Your task to perform on an android device: open app "HBO Max: Stream TV & Movies" (install if not already installed) and go to login screen Image 0: 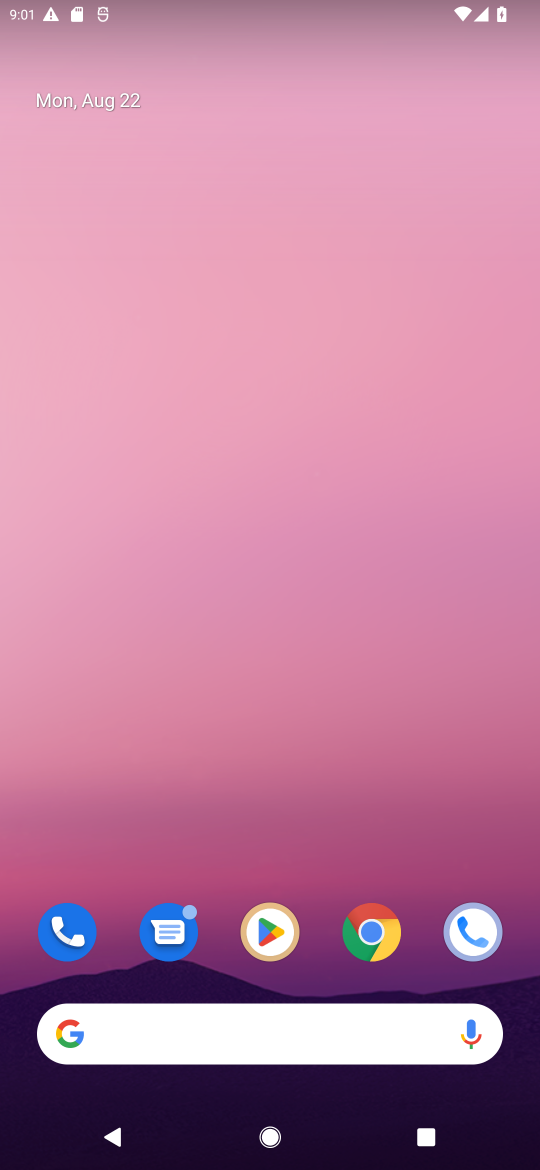
Step 0: click (289, 927)
Your task to perform on an android device: open app "HBO Max: Stream TV & Movies" (install if not already installed) and go to login screen Image 1: 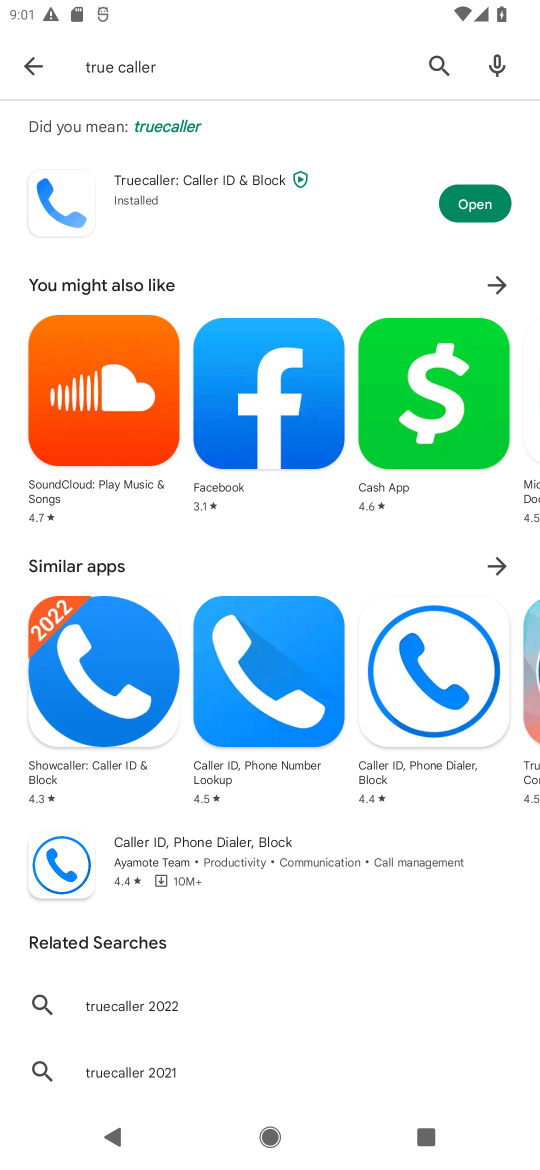
Step 1: click (427, 76)
Your task to perform on an android device: open app "HBO Max: Stream TV & Movies" (install if not already installed) and go to login screen Image 2: 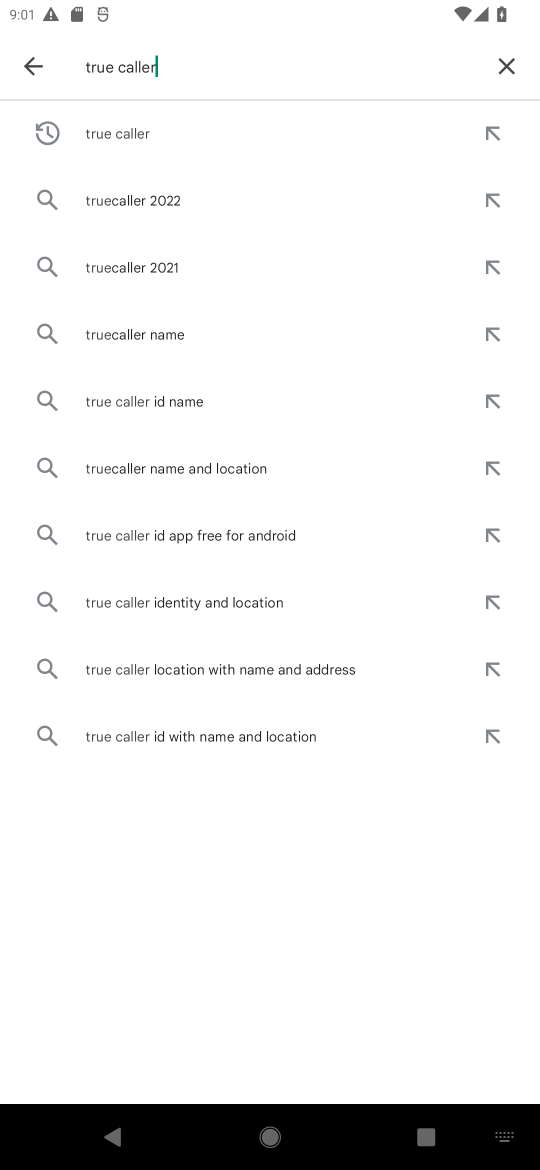
Step 2: click (497, 57)
Your task to perform on an android device: open app "HBO Max: Stream TV & Movies" (install if not already installed) and go to login screen Image 3: 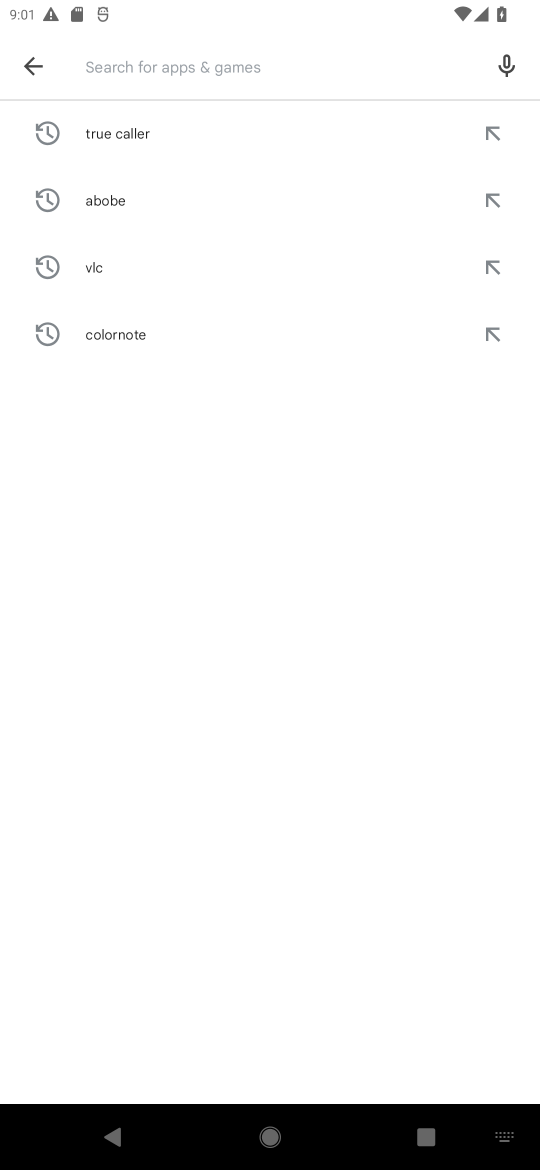
Step 3: type "hbo"
Your task to perform on an android device: open app "HBO Max: Stream TV & Movies" (install if not already installed) and go to login screen Image 4: 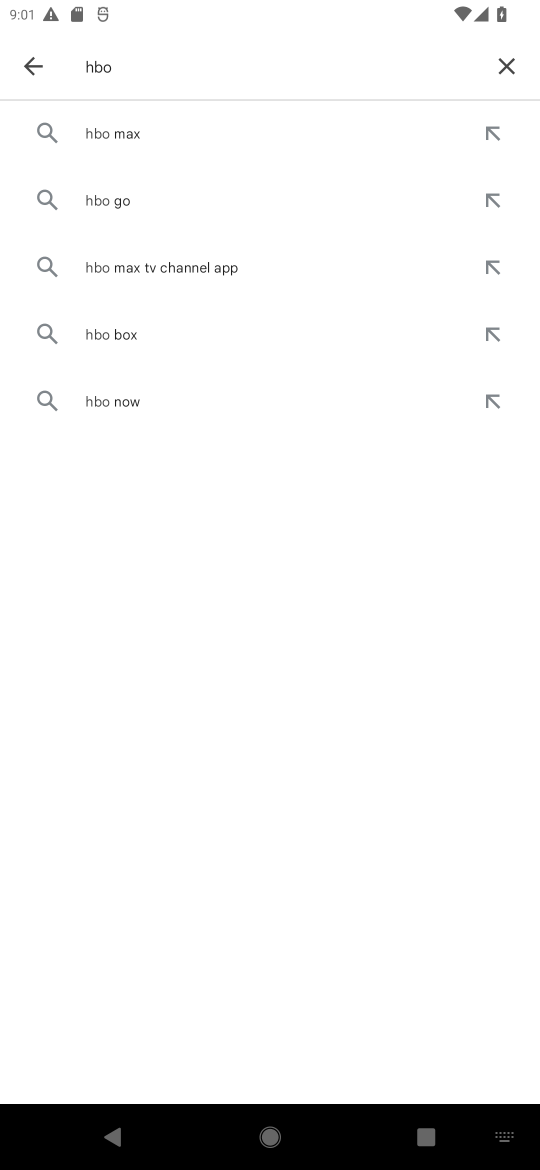
Step 4: click (296, 127)
Your task to perform on an android device: open app "HBO Max: Stream TV & Movies" (install if not already installed) and go to login screen Image 5: 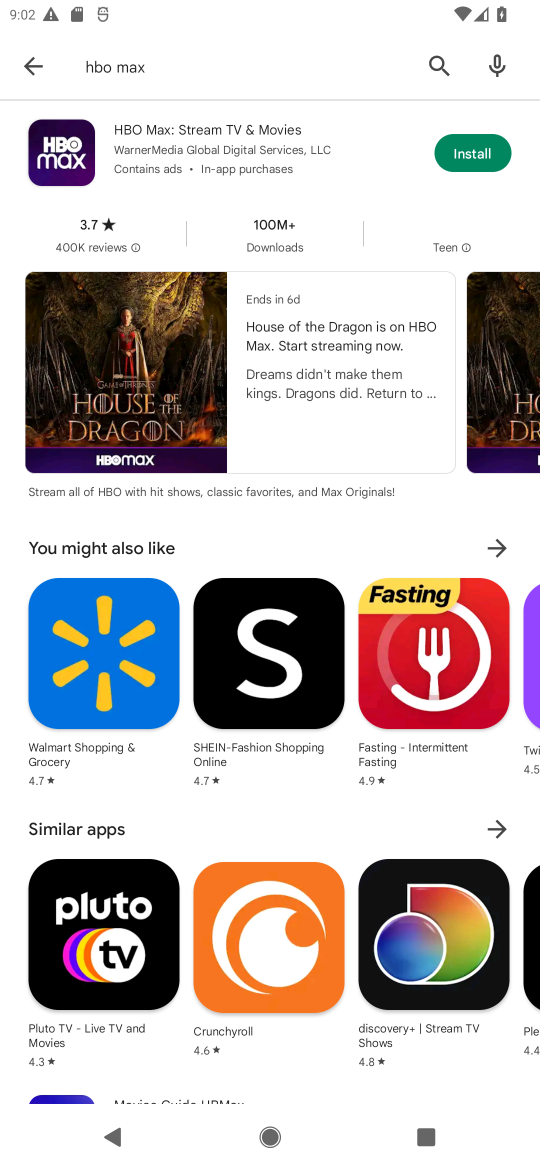
Step 5: click (451, 164)
Your task to perform on an android device: open app "HBO Max: Stream TV & Movies" (install if not already installed) and go to login screen Image 6: 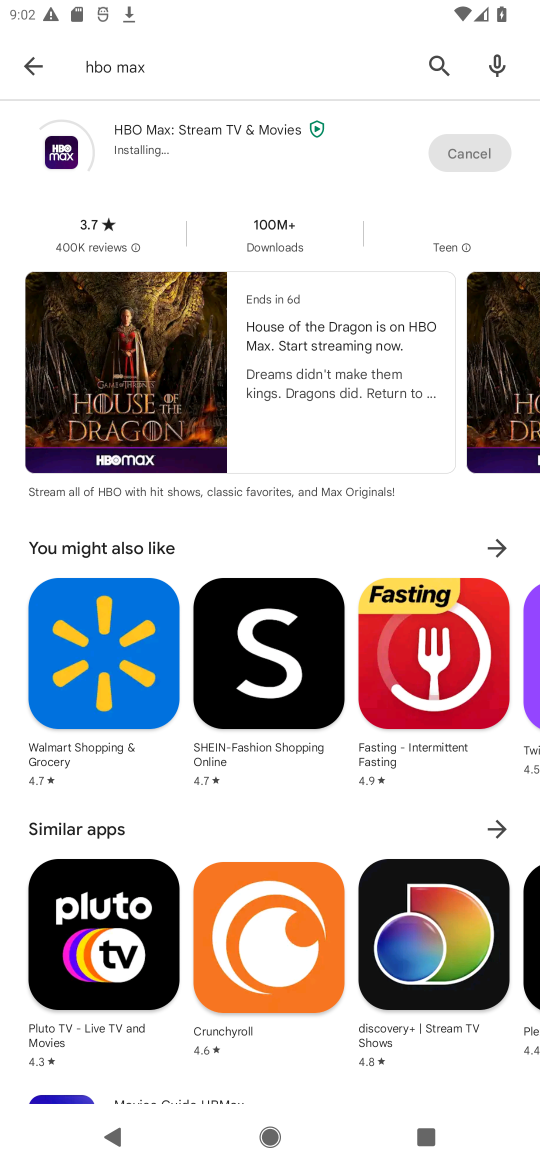
Step 6: click (472, 146)
Your task to perform on an android device: open app "HBO Max: Stream TV & Movies" (install if not already installed) and go to login screen Image 7: 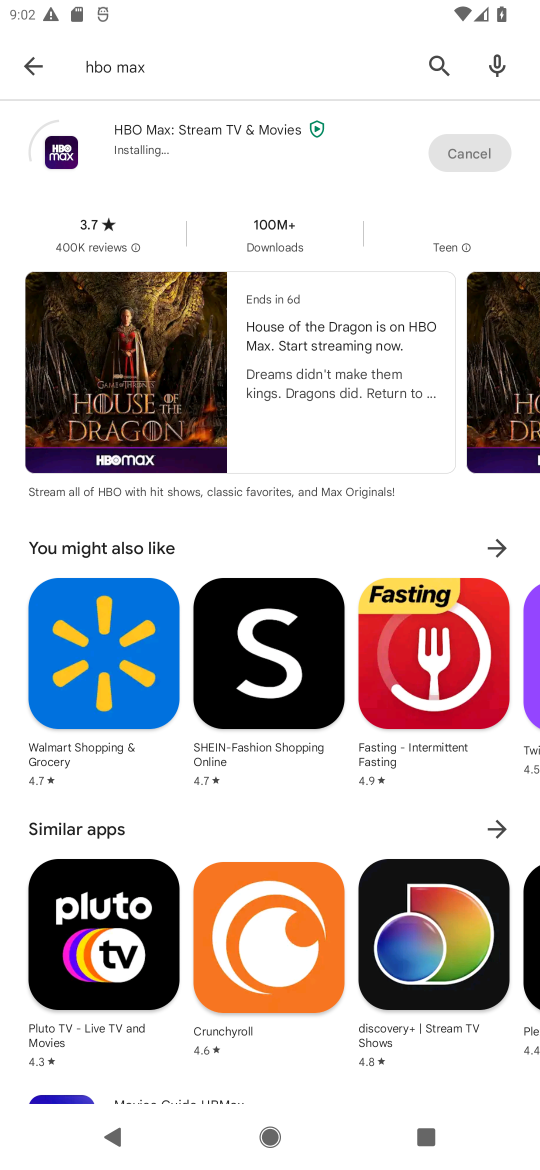
Step 7: task complete